Your task to perform on an android device: Go to Yahoo.com Image 0: 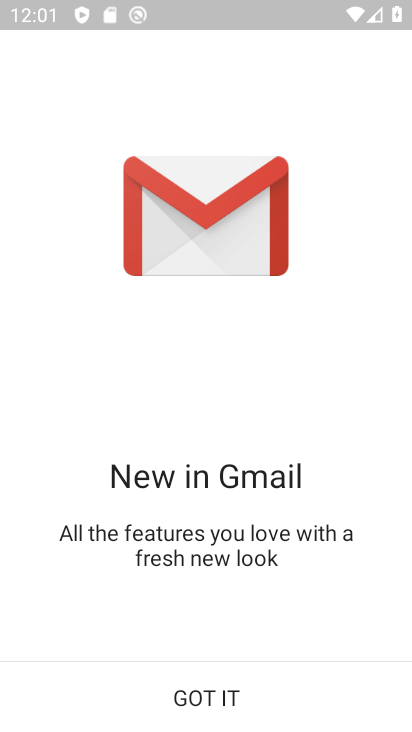
Step 0: press back button
Your task to perform on an android device: Go to Yahoo.com Image 1: 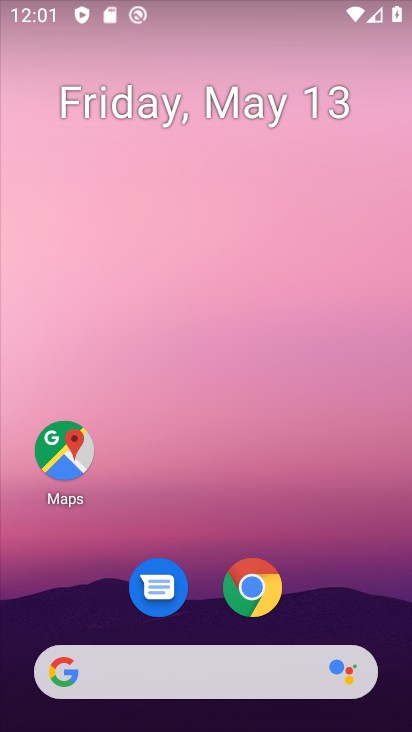
Step 1: click (257, 590)
Your task to perform on an android device: Go to Yahoo.com Image 2: 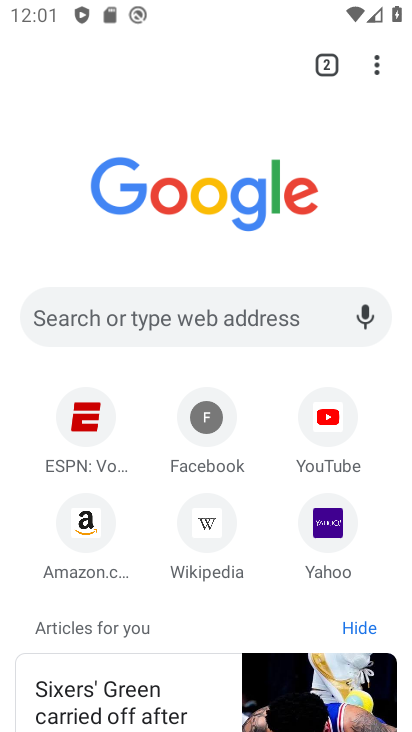
Step 2: click (335, 535)
Your task to perform on an android device: Go to Yahoo.com Image 3: 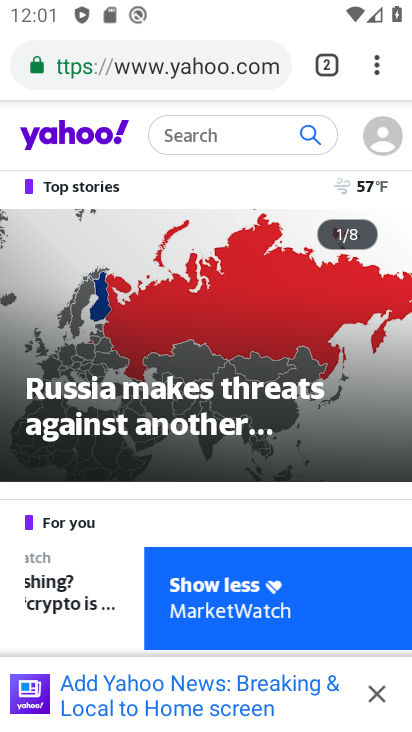
Step 3: task complete